Your task to perform on an android device: Do I have any events tomorrow? Image 0: 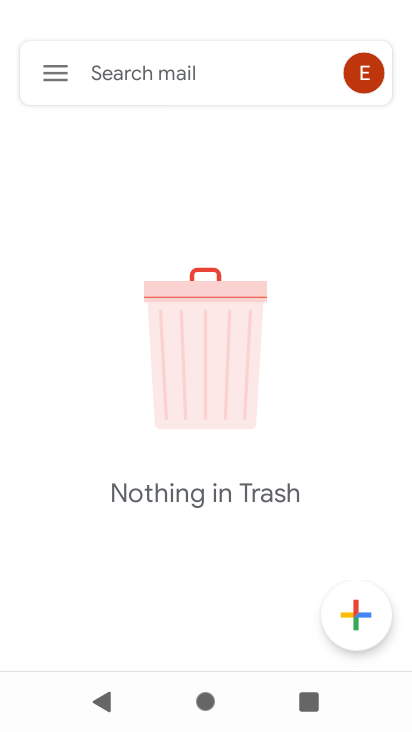
Step 0: press home button
Your task to perform on an android device: Do I have any events tomorrow? Image 1: 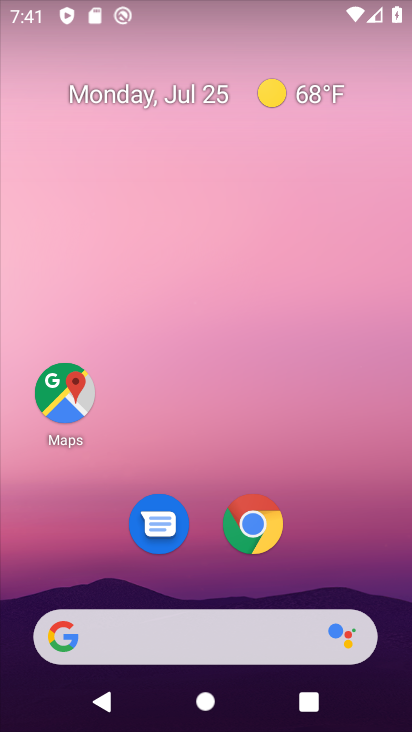
Step 1: drag from (320, 568) to (349, 24)
Your task to perform on an android device: Do I have any events tomorrow? Image 2: 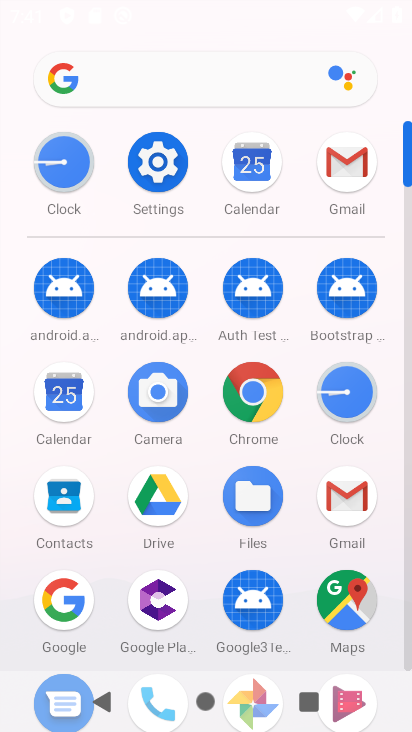
Step 2: click (74, 384)
Your task to perform on an android device: Do I have any events tomorrow? Image 3: 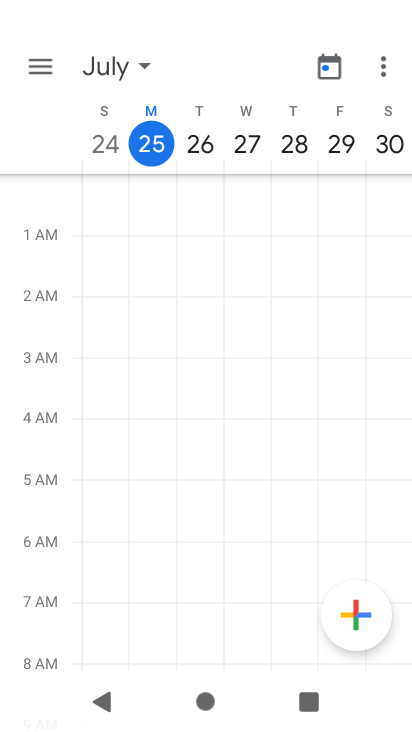
Step 3: task complete